Your task to perform on an android device: Search for Italian restaurants on Maps Image 0: 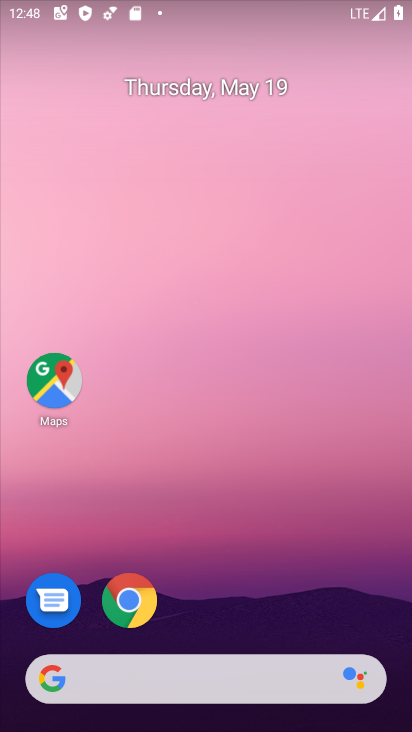
Step 0: click (40, 373)
Your task to perform on an android device: Search for Italian restaurants on Maps Image 1: 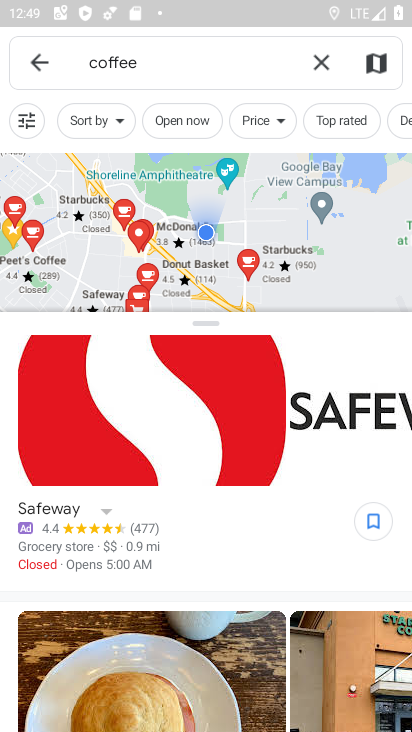
Step 1: click (320, 53)
Your task to perform on an android device: Search for Italian restaurants on Maps Image 2: 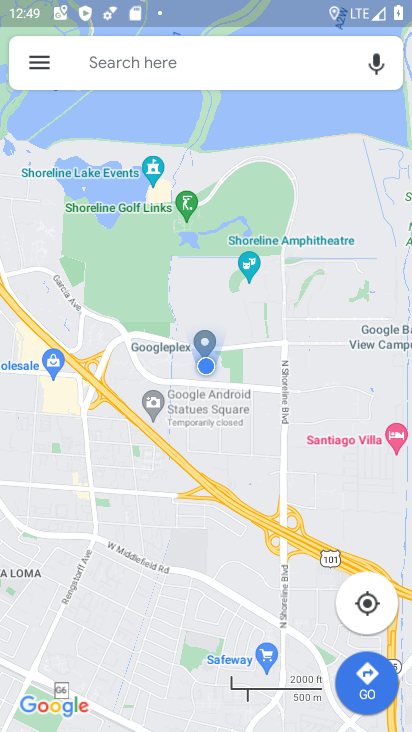
Step 2: click (178, 55)
Your task to perform on an android device: Search for Italian restaurants on Maps Image 3: 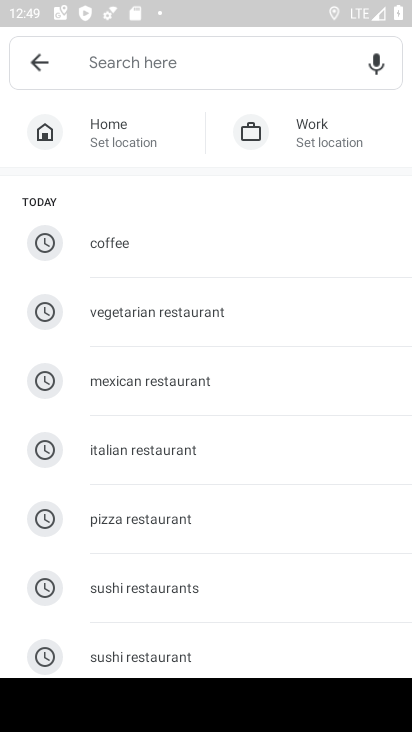
Step 3: click (157, 444)
Your task to perform on an android device: Search for Italian restaurants on Maps Image 4: 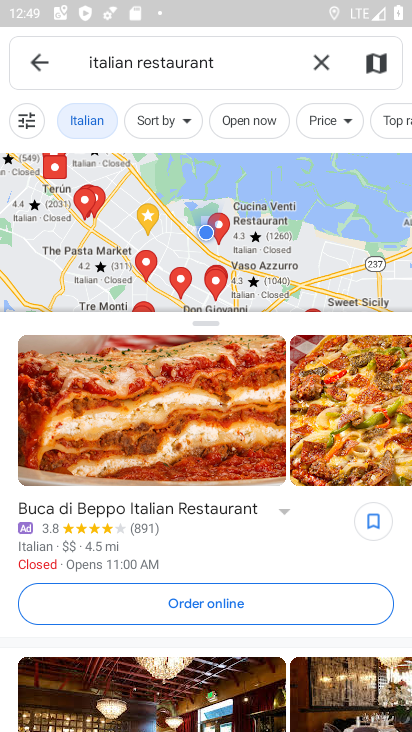
Step 4: task complete